Your task to perform on an android device: Search for sushi restaurants on Maps Image 0: 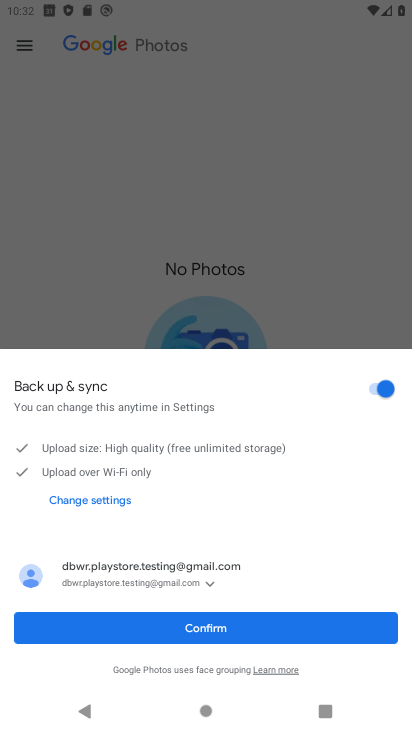
Step 0: press home button
Your task to perform on an android device: Search for sushi restaurants on Maps Image 1: 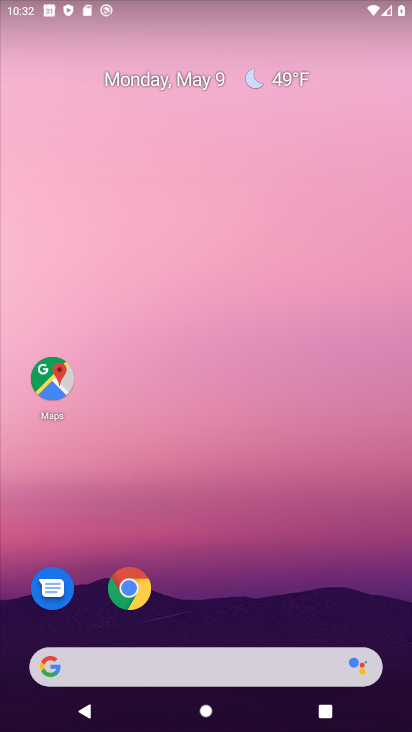
Step 1: drag from (223, 729) to (223, 262)
Your task to perform on an android device: Search for sushi restaurants on Maps Image 2: 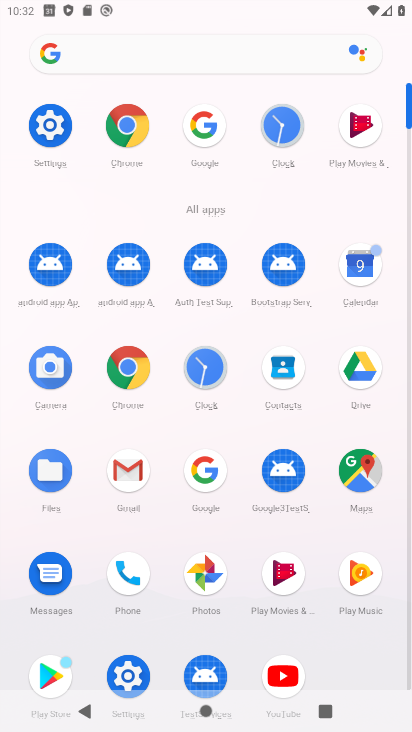
Step 2: click (355, 468)
Your task to perform on an android device: Search for sushi restaurants on Maps Image 3: 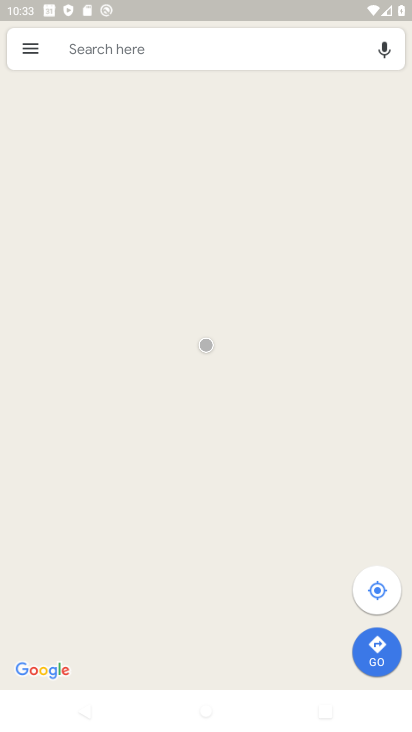
Step 3: click (140, 41)
Your task to perform on an android device: Search for sushi restaurants on Maps Image 4: 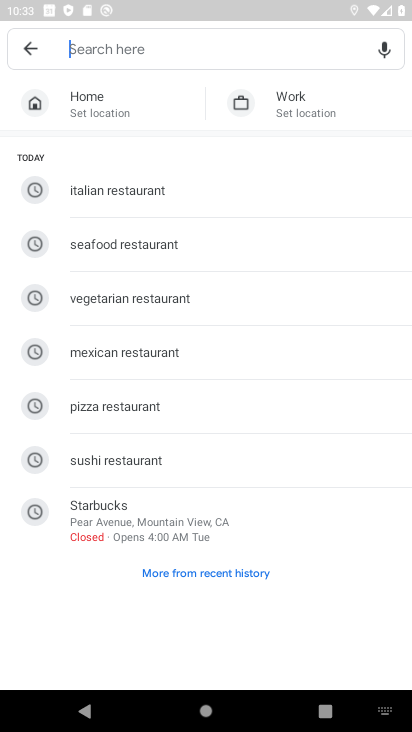
Step 4: type "sushi restaurants"
Your task to perform on an android device: Search for sushi restaurants on Maps Image 5: 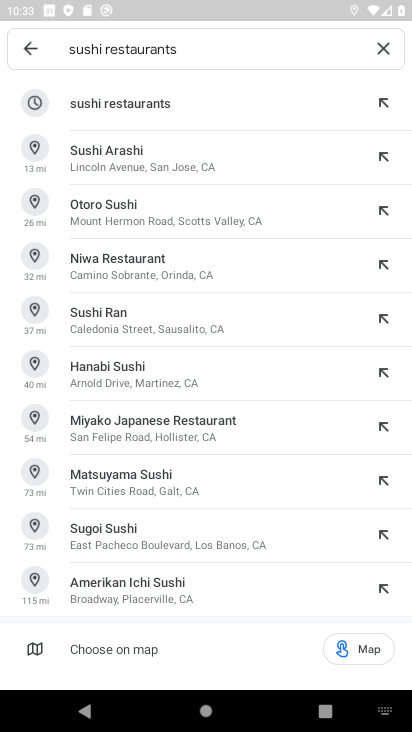
Step 5: click (103, 98)
Your task to perform on an android device: Search for sushi restaurants on Maps Image 6: 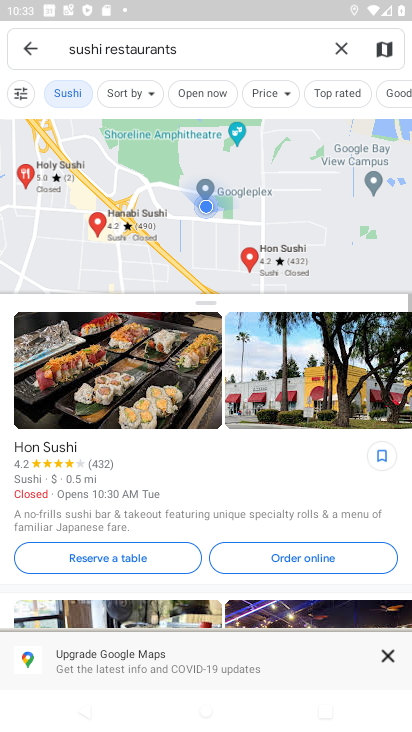
Step 6: task complete